Your task to perform on an android device: Go to Wikipedia Image 0: 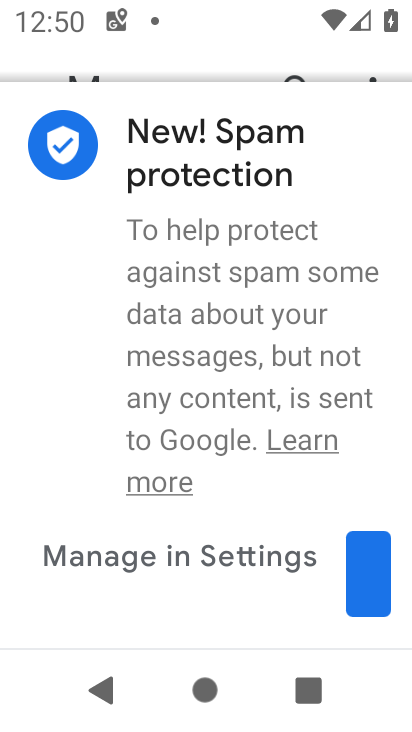
Step 0: press back button
Your task to perform on an android device: Go to Wikipedia Image 1: 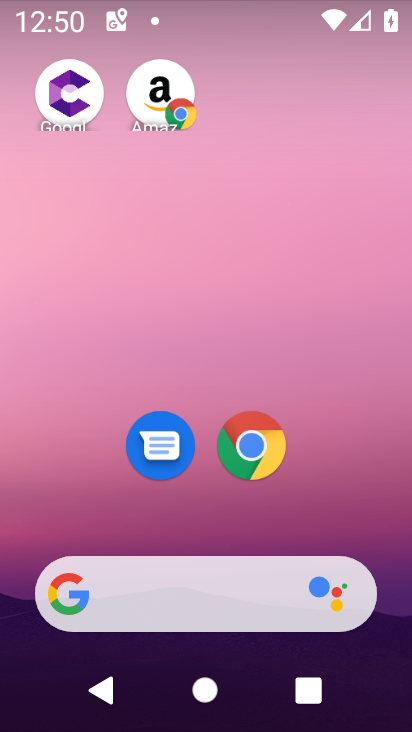
Step 1: click (251, 443)
Your task to perform on an android device: Go to Wikipedia Image 2: 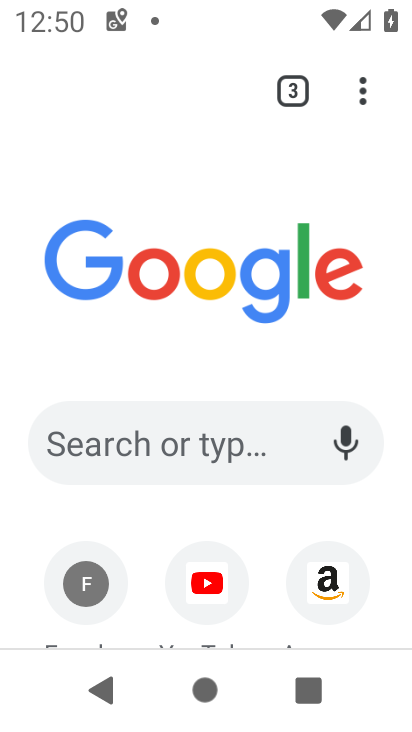
Step 2: click (200, 445)
Your task to perform on an android device: Go to Wikipedia Image 3: 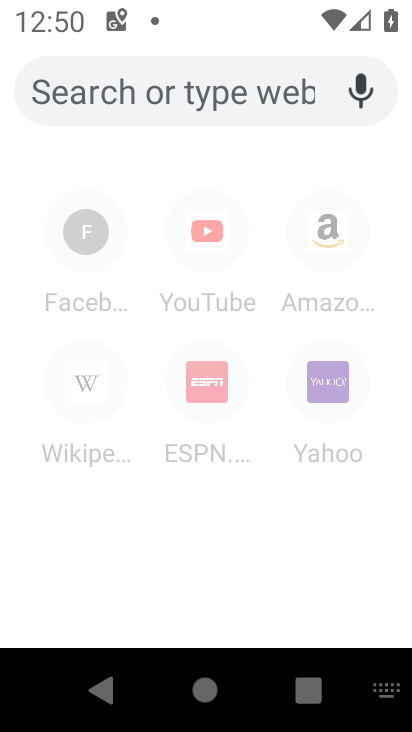
Step 3: type "Wikipedia"
Your task to perform on an android device: Go to Wikipedia Image 4: 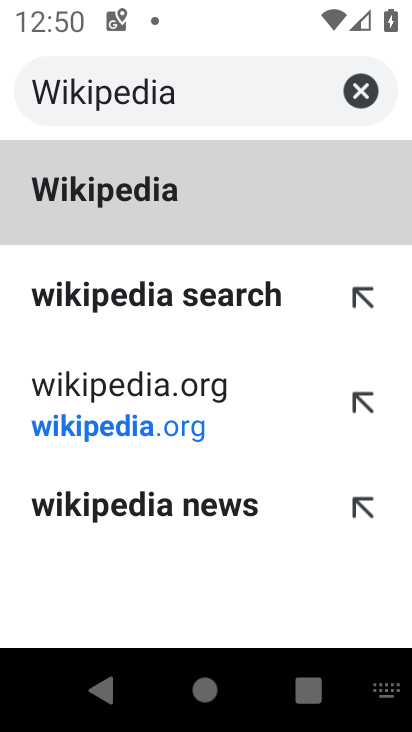
Step 4: click (134, 184)
Your task to perform on an android device: Go to Wikipedia Image 5: 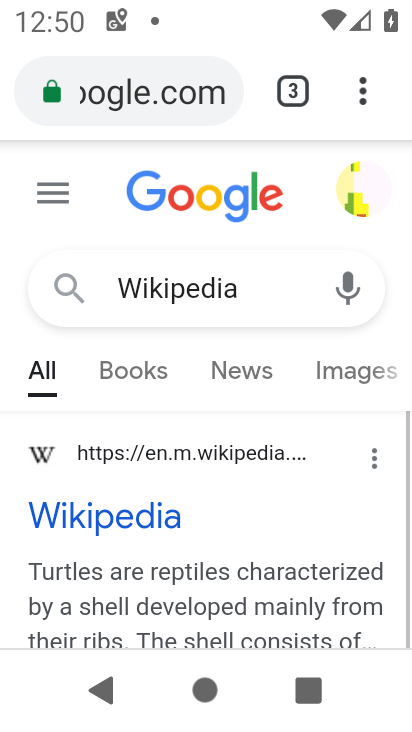
Step 5: click (83, 517)
Your task to perform on an android device: Go to Wikipedia Image 6: 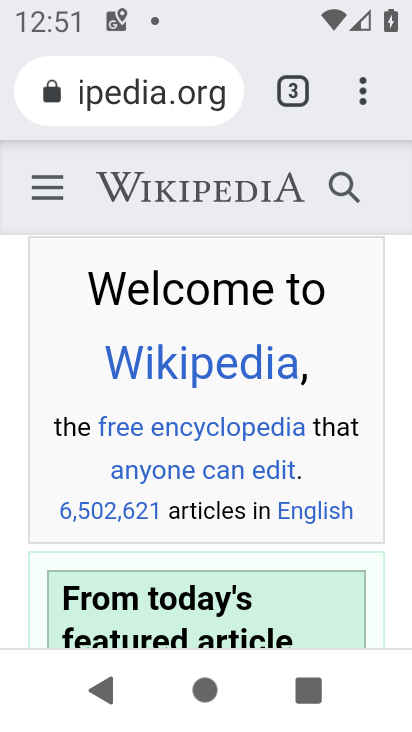
Step 6: task complete